Your task to perform on an android device: Go to sound settings Image 0: 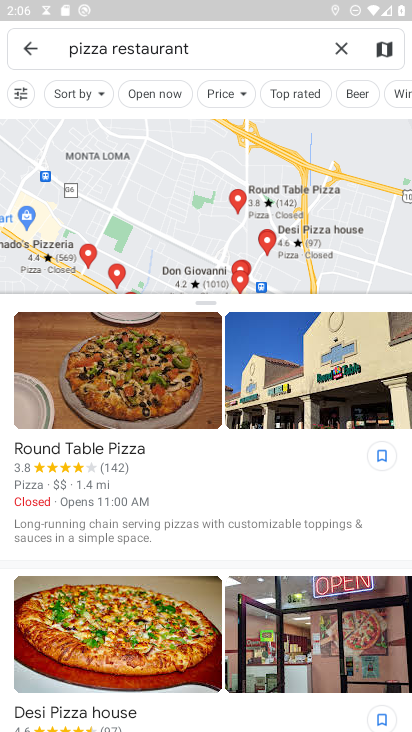
Step 0: press home button
Your task to perform on an android device: Go to sound settings Image 1: 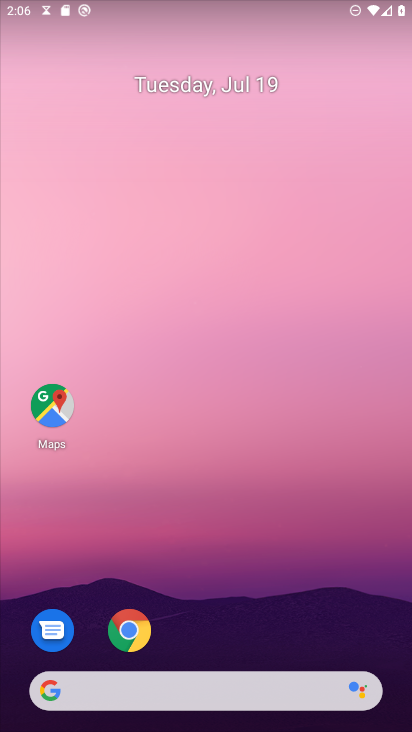
Step 1: drag from (178, 696) to (306, 175)
Your task to perform on an android device: Go to sound settings Image 2: 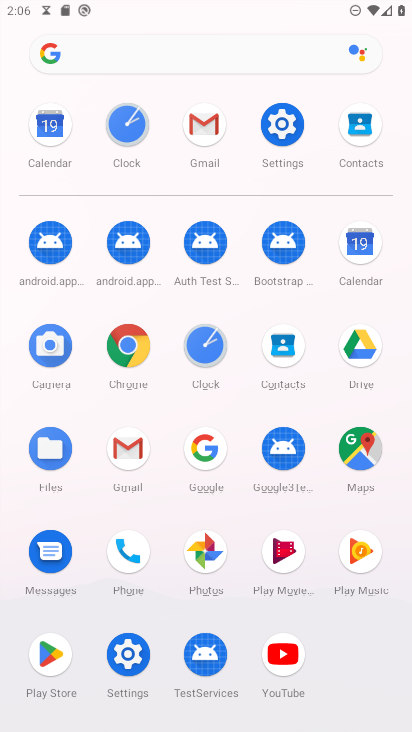
Step 2: click (283, 127)
Your task to perform on an android device: Go to sound settings Image 3: 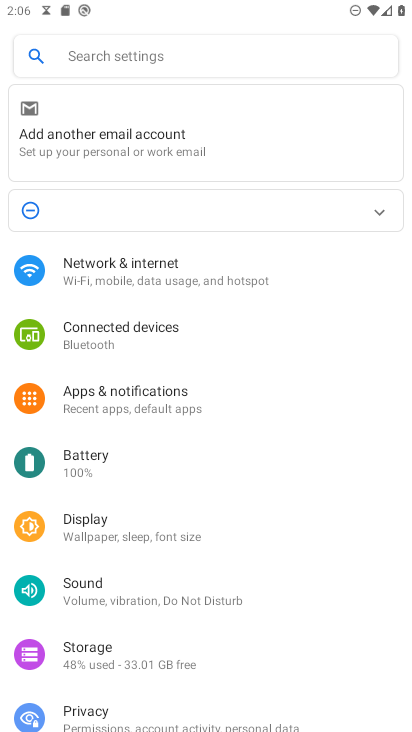
Step 3: click (111, 596)
Your task to perform on an android device: Go to sound settings Image 4: 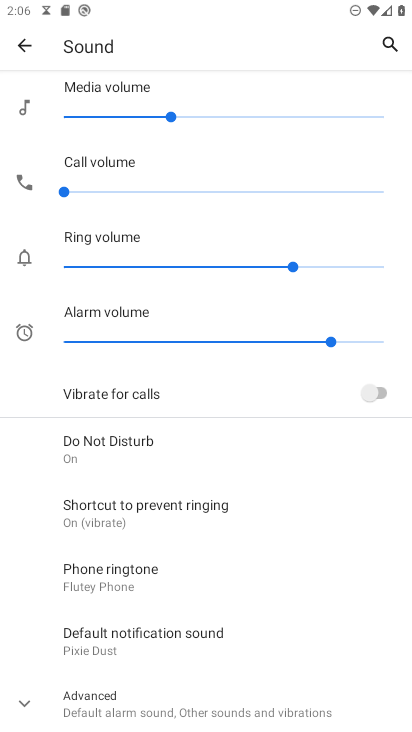
Step 4: task complete